Your task to perform on an android device: Go to ESPN.com Image 0: 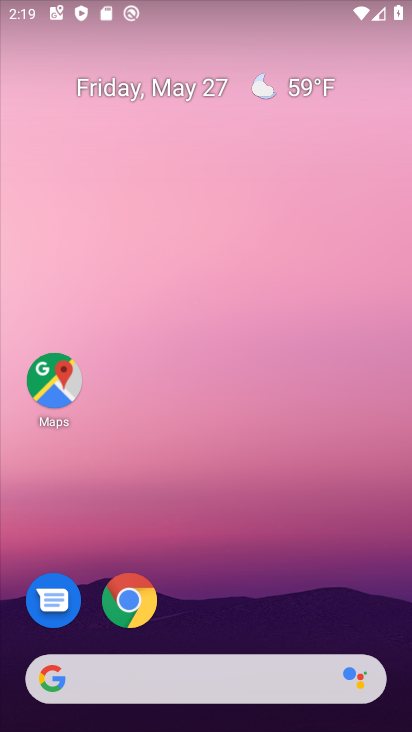
Step 0: click (129, 601)
Your task to perform on an android device: Go to ESPN.com Image 1: 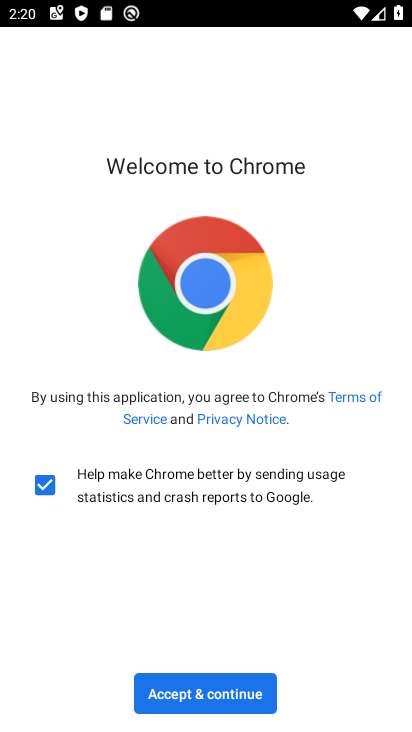
Step 1: click (202, 693)
Your task to perform on an android device: Go to ESPN.com Image 2: 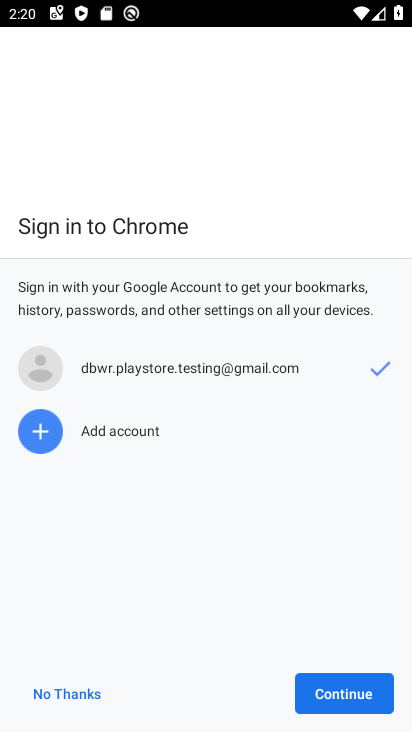
Step 2: click (329, 690)
Your task to perform on an android device: Go to ESPN.com Image 3: 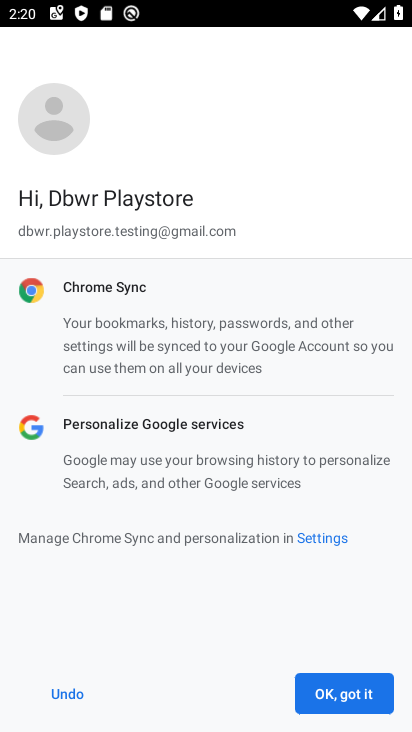
Step 3: click (329, 690)
Your task to perform on an android device: Go to ESPN.com Image 4: 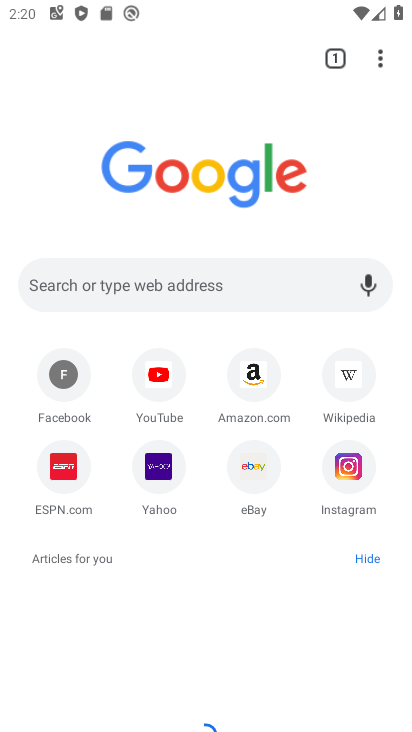
Step 4: click (201, 274)
Your task to perform on an android device: Go to ESPN.com Image 5: 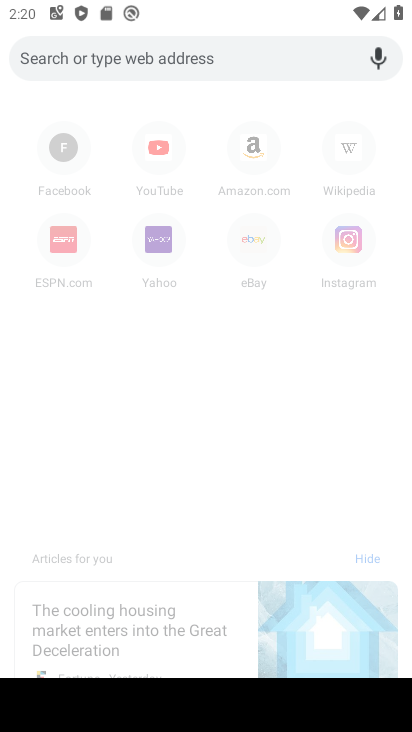
Step 5: type "ESPN.com"
Your task to perform on an android device: Go to ESPN.com Image 6: 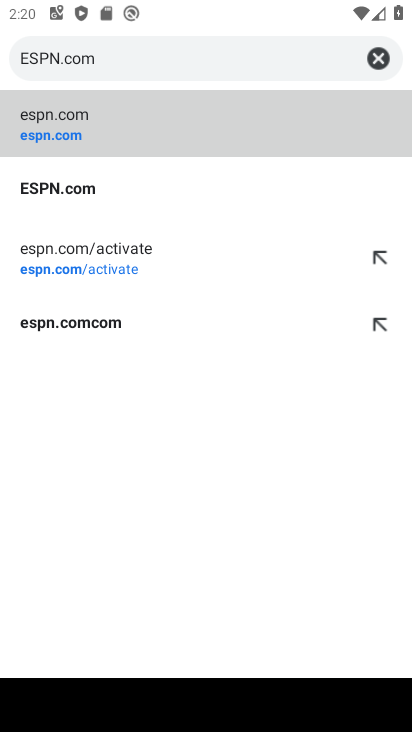
Step 6: click (30, 182)
Your task to perform on an android device: Go to ESPN.com Image 7: 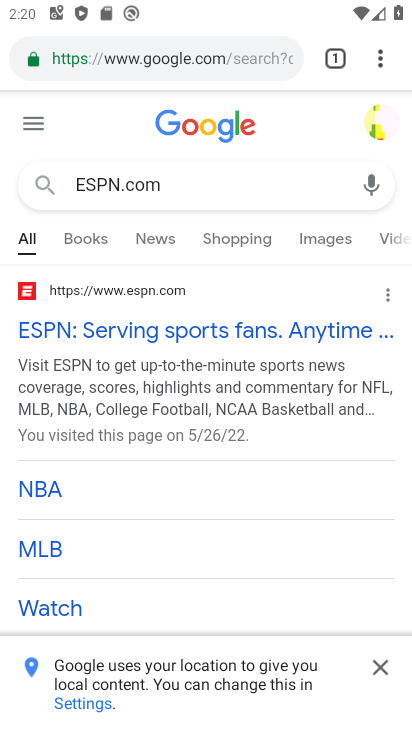
Step 7: click (69, 333)
Your task to perform on an android device: Go to ESPN.com Image 8: 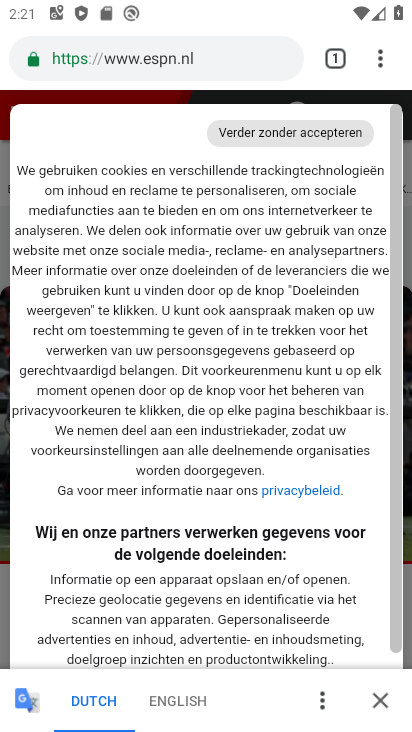
Step 8: task complete